Your task to perform on an android device: Open my contact list Image 0: 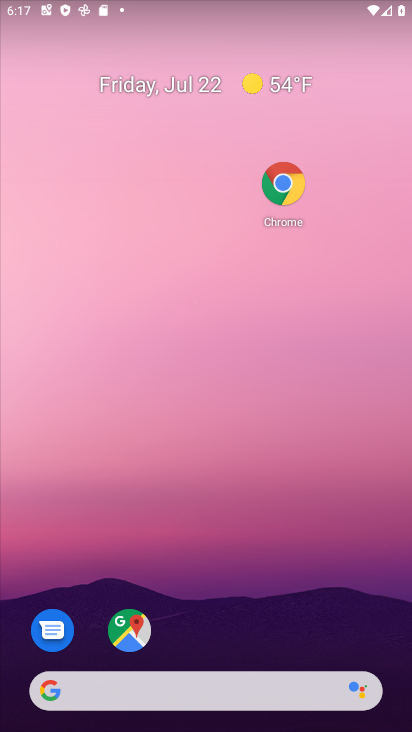
Step 0: drag from (194, 558) to (163, 103)
Your task to perform on an android device: Open my contact list Image 1: 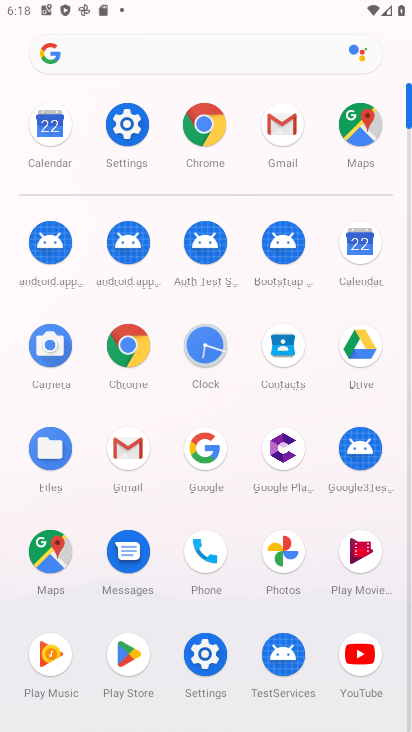
Step 1: click (292, 354)
Your task to perform on an android device: Open my contact list Image 2: 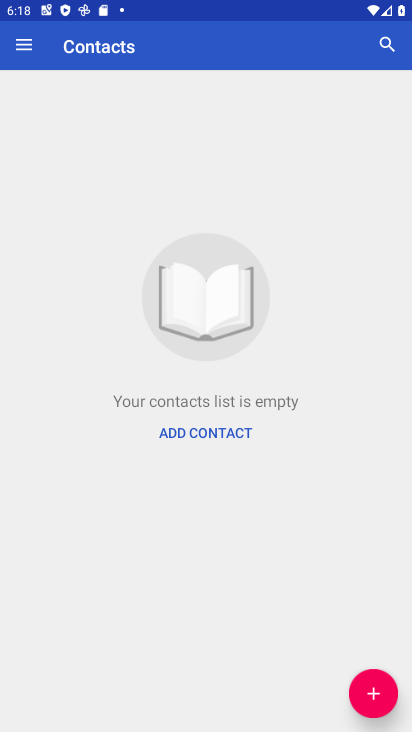
Step 2: task complete